Your task to perform on an android device: Open calendar and show me the second week of next month Image 0: 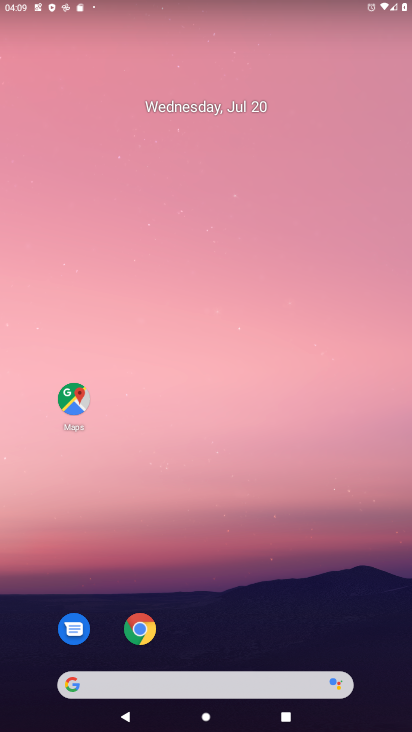
Step 0: drag from (371, 688) to (324, 42)
Your task to perform on an android device: Open calendar and show me the second week of next month Image 1: 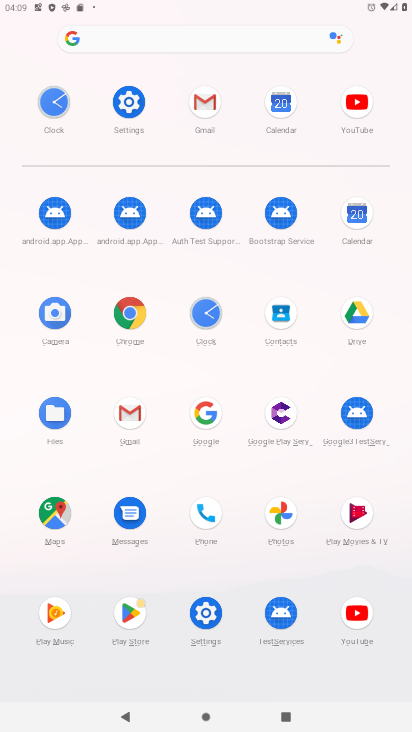
Step 1: click (354, 211)
Your task to perform on an android device: Open calendar and show me the second week of next month Image 2: 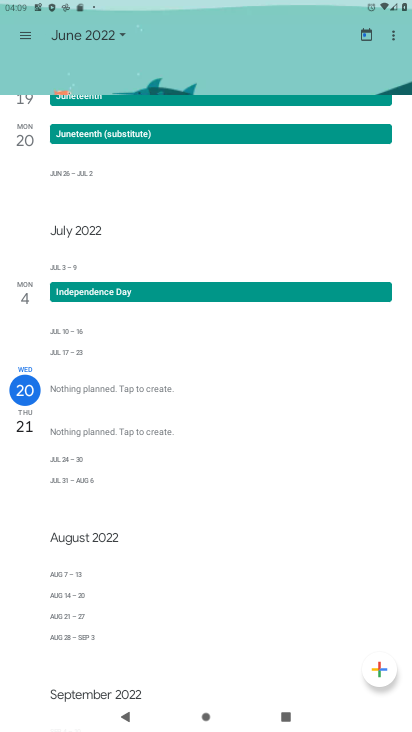
Step 2: click (21, 31)
Your task to perform on an android device: Open calendar and show me the second week of next month Image 3: 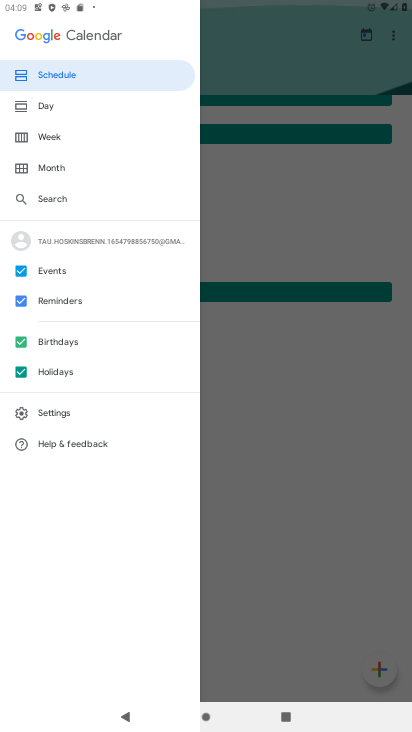
Step 3: click (46, 136)
Your task to perform on an android device: Open calendar and show me the second week of next month Image 4: 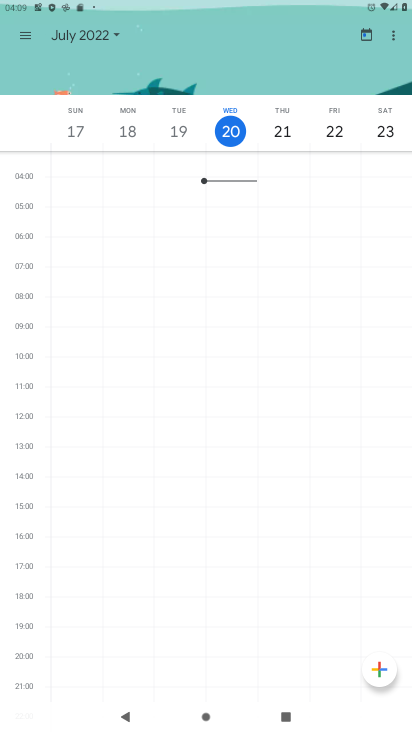
Step 4: click (119, 35)
Your task to perform on an android device: Open calendar and show me the second week of next month Image 5: 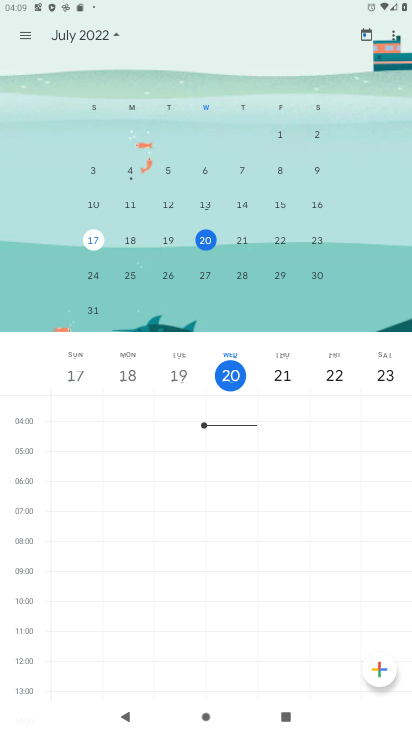
Step 5: drag from (324, 227) to (86, 252)
Your task to perform on an android device: Open calendar and show me the second week of next month Image 6: 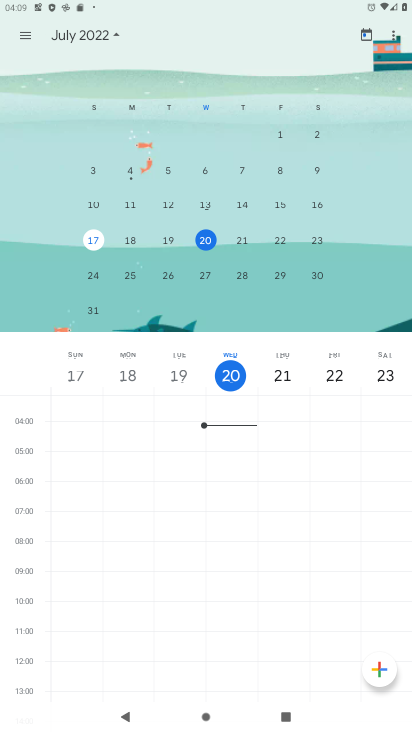
Step 6: drag from (324, 229) to (48, 240)
Your task to perform on an android device: Open calendar and show me the second week of next month Image 7: 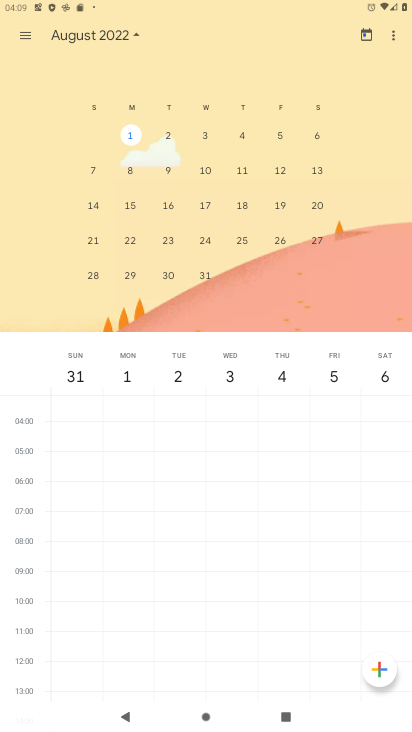
Step 7: click (97, 208)
Your task to perform on an android device: Open calendar and show me the second week of next month Image 8: 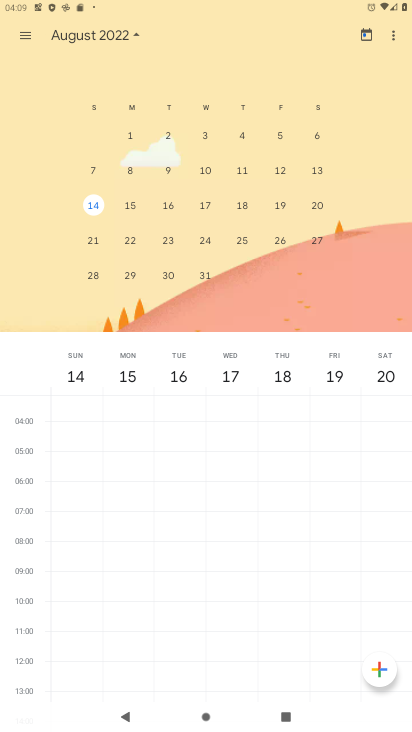
Step 8: task complete